Your task to perform on an android device: Show me popular videos on Youtube Image 0: 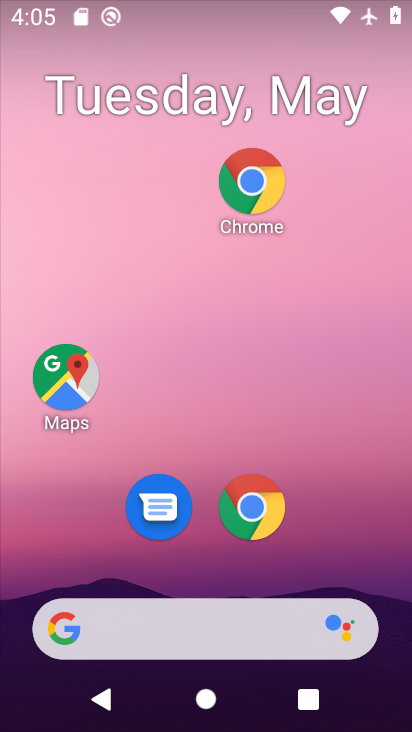
Step 0: drag from (376, 534) to (396, 65)
Your task to perform on an android device: Show me popular videos on Youtube Image 1: 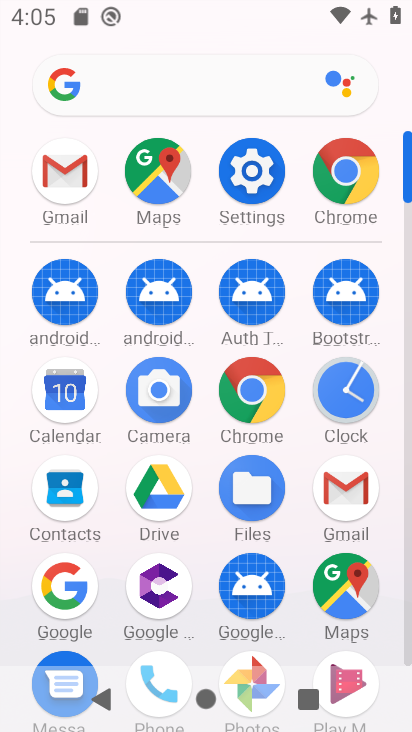
Step 1: drag from (396, 541) to (409, 358)
Your task to perform on an android device: Show me popular videos on Youtube Image 2: 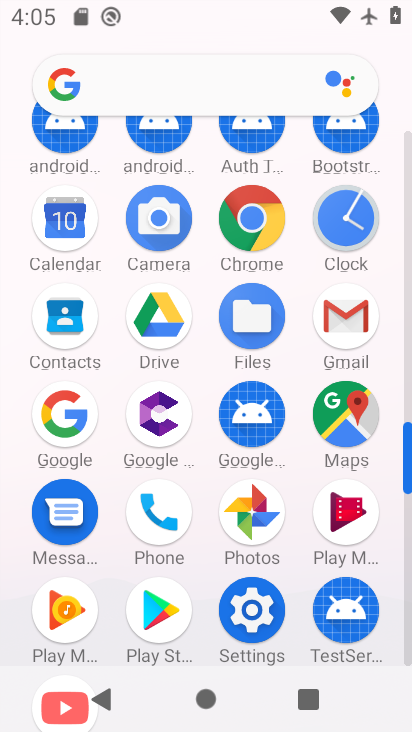
Step 2: drag from (392, 613) to (409, 186)
Your task to perform on an android device: Show me popular videos on Youtube Image 3: 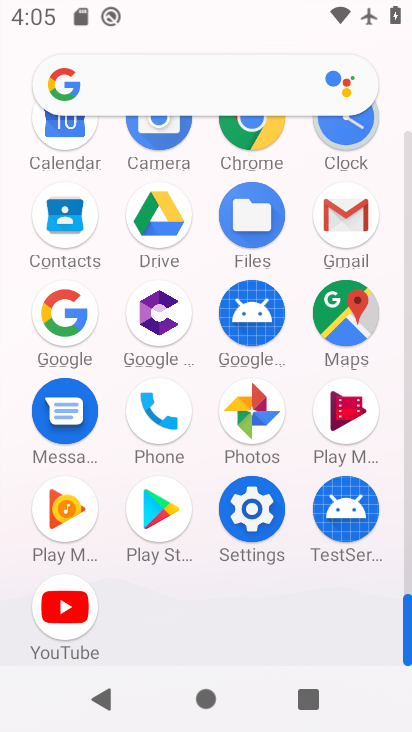
Step 3: click (59, 612)
Your task to perform on an android device: Show me popular videos on Youtube Image 4: 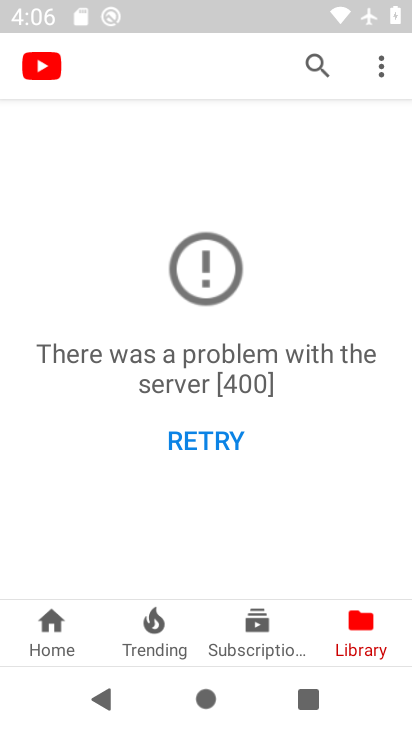
Step 4: click (322, 68)
Your task to perform on an android device: Show me popular videos on Youtube Image 5: 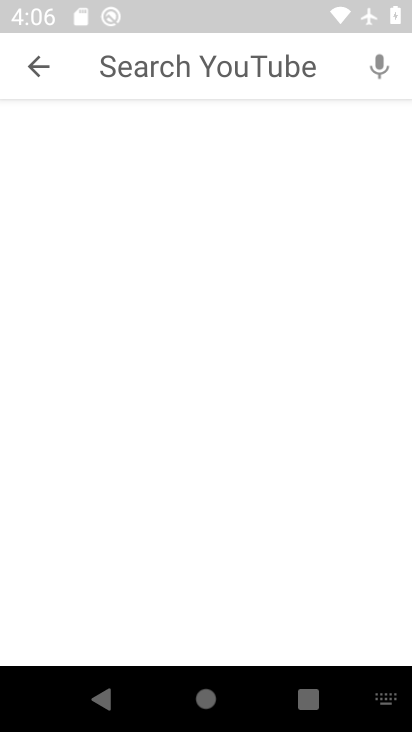
Step 5: task complete